Your task to perform on an android device: uninstall "LinkedIn" Image 0: 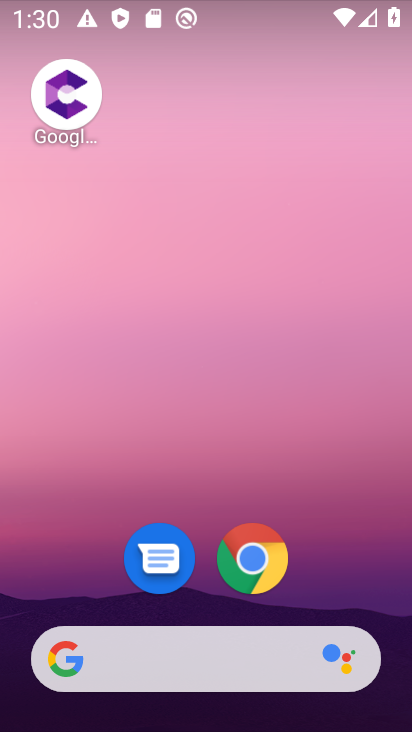
Step 0: drag from (313, 353) to (313, 0)
Your task to perform on an android device: uninstall "LinkedIn" Image 1: 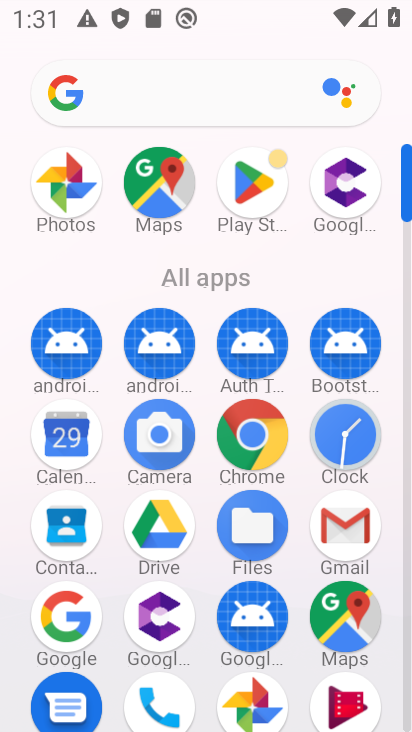
Step 1: click (260, 174)
Your task to perform on an android device: uninstall "LinkedIn" Image 2: 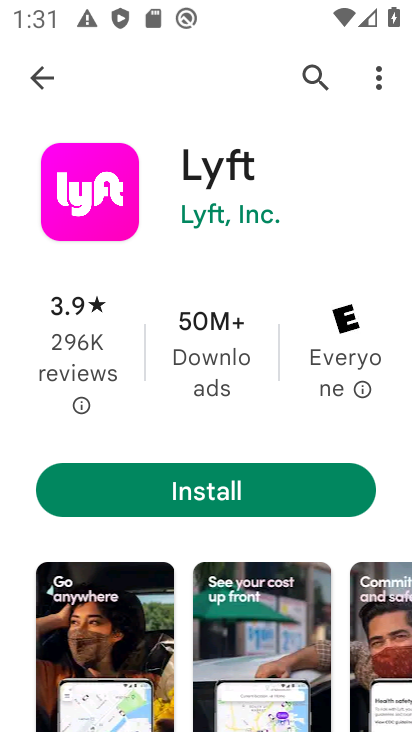
Step 2: click (309, 87)
Your task to perform on an android device: uninstall "LinkedIn" Image 3: 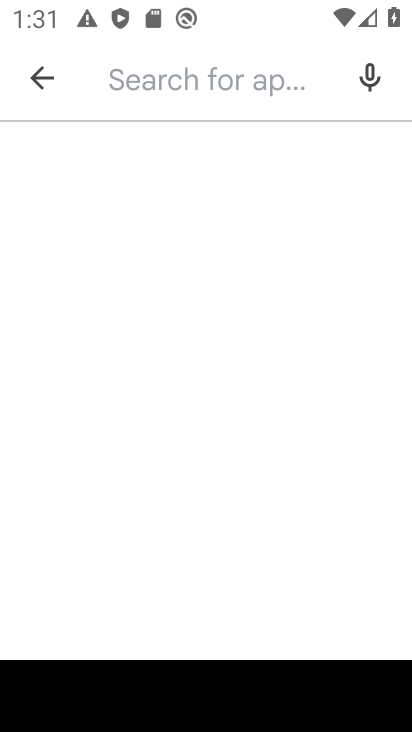
Step 3: type "LinkedIn"
Your task to perform on an android device: uninstall "LinkedIn" Image 4: 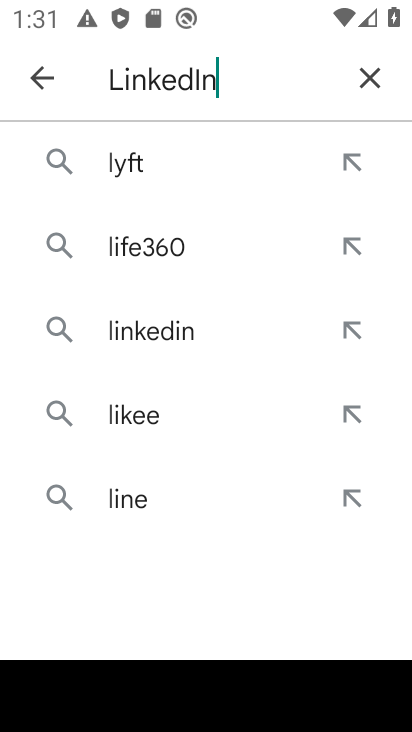
Step 4: type ""
Your task to perform on an android device: uninstall "LinkedIn" Image 5: 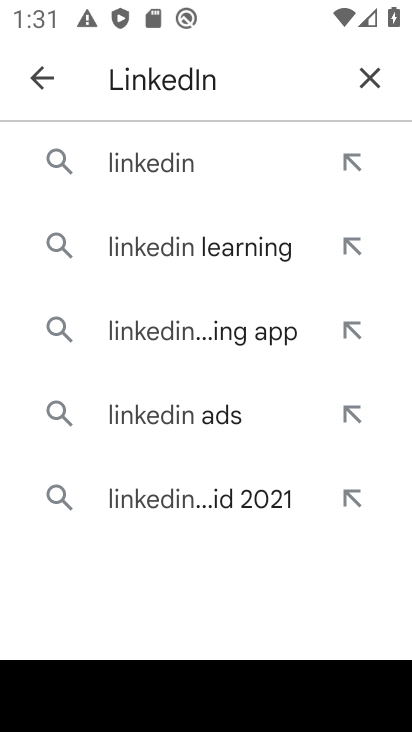
Step 5: click (170, 164)
Your task to perform on an android device: uninstall "LinkedIn" Image 6: 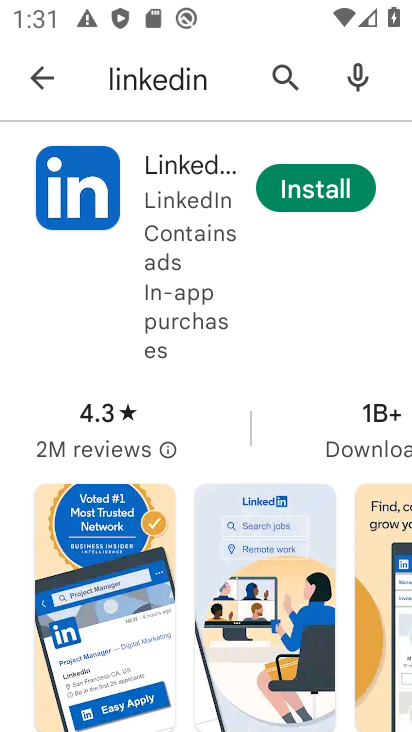
Step 6: task complete